Your task to perform on an android device: Open my contact list Image 0: 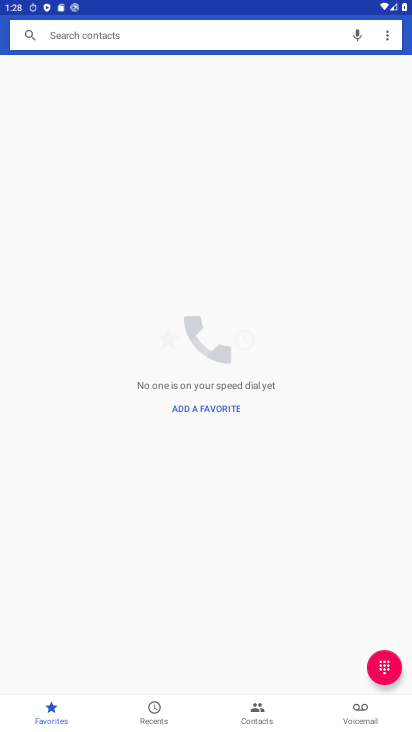
Step 0: press home button
Your task to perform on an android device: Open my contact list Image 1: 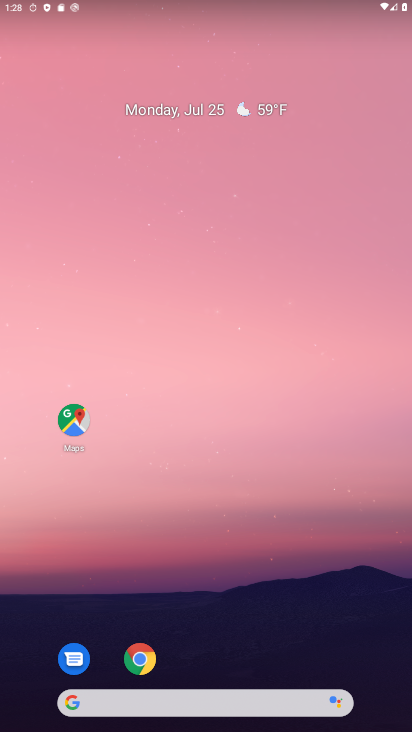
Step 1: drag from (207, 667) to (186, 5)
Your task to perform on an android device: Open my contact list Image 2: 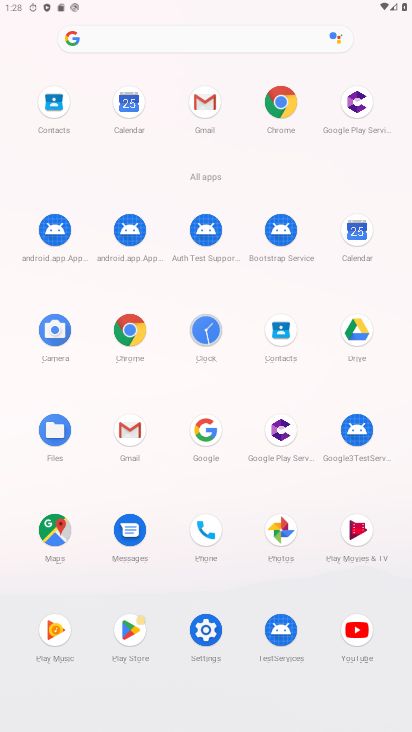
Step 2: click (279, 330)
Your task to perform on an android device: Open my contact list Image 3: 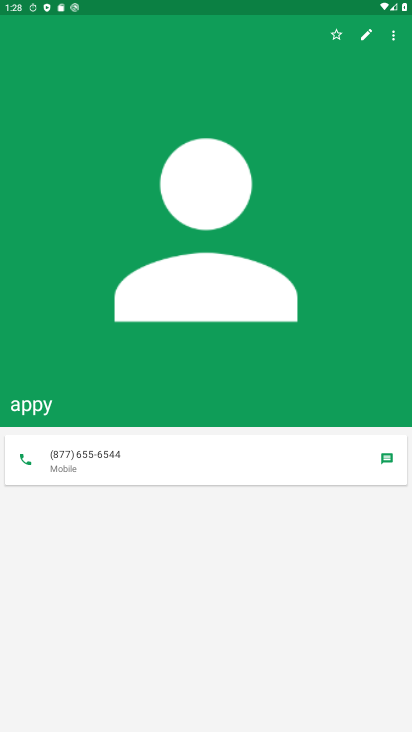
Step 3: click (389, 39)
Your task to perform on an android device: Open my contact list Image 4: 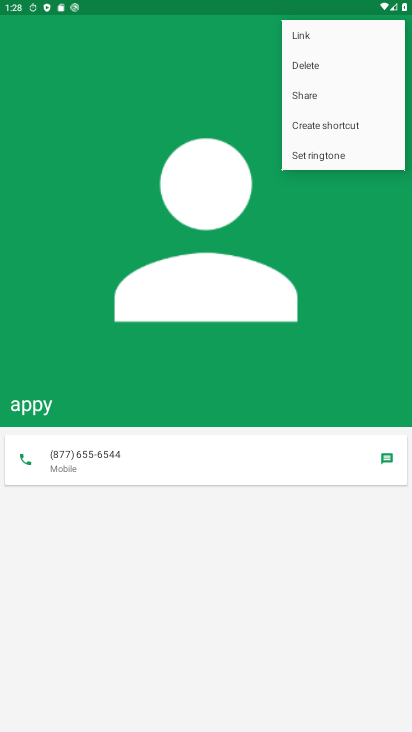
Step 4: click (362, 348)
Your task to perform on an android device: Open my contact list Image 5: 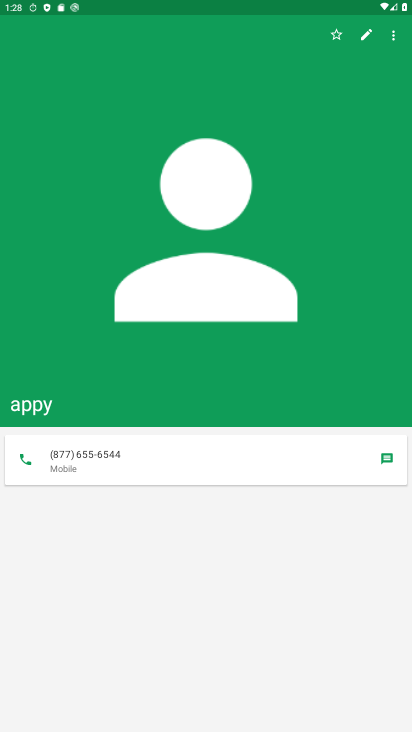
Step 5: task complete